Your task to perform on an android device: Open my contact list Image 0: 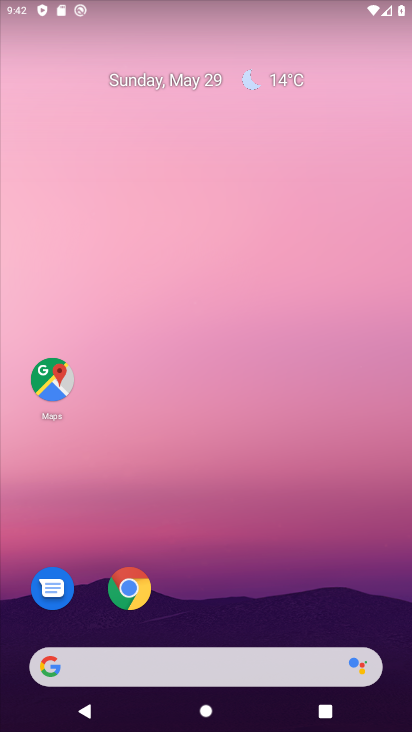
Step 0: drag from (303, 567) to (247, 106)
Your task to perform on an android device: Open my contact list Image 1: 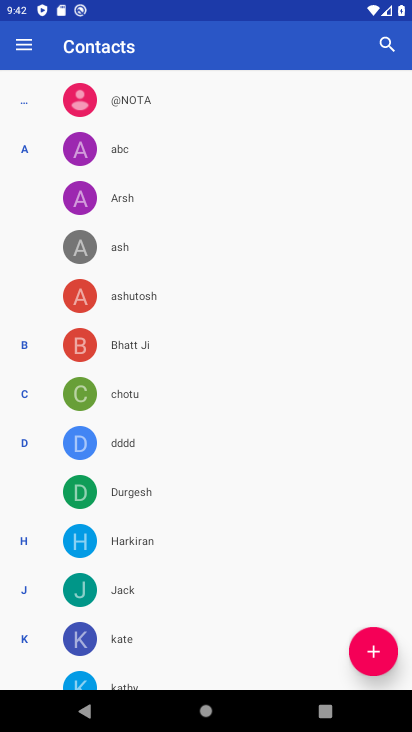
Step 1: task complete